Your task to perform on an android device: Open settings on Google Maps Image 0: 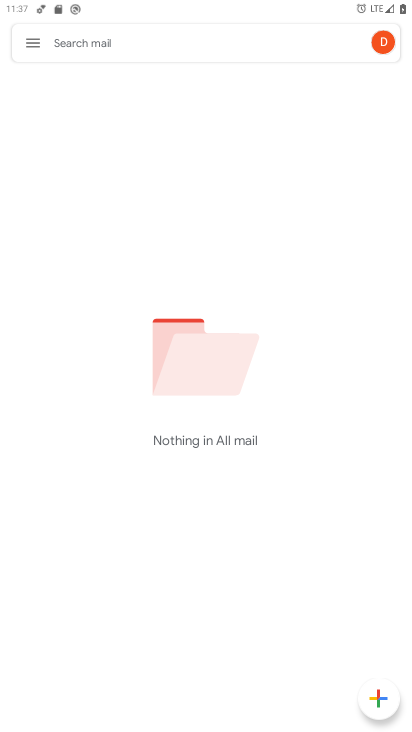
Step 0: press home button
Your task to perform on an android device: Open settings on Google Maps Image 1: 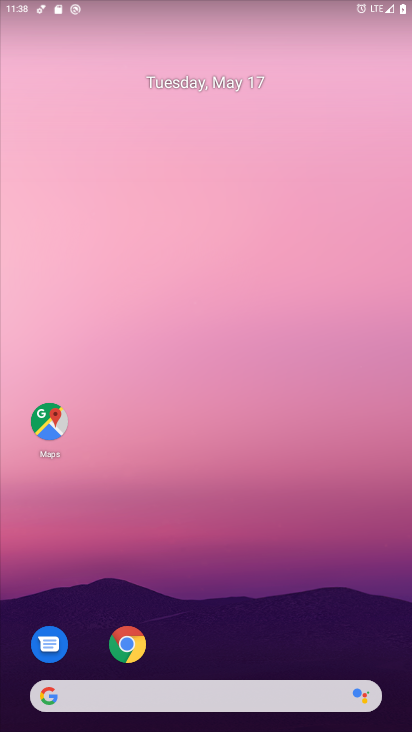
Step 1: click (49, 420)
Your task to perform on an android device: Open settings on Google Maps Image 2: 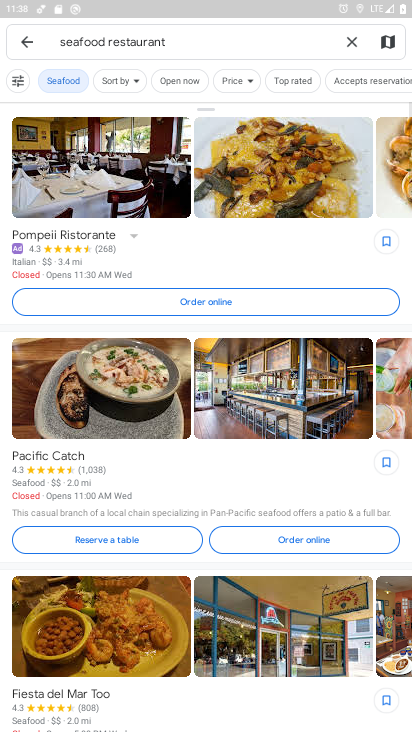
Step 2: click (23, 46)
Your task to perform on an android device: Open settings on Google Maps Image 3: 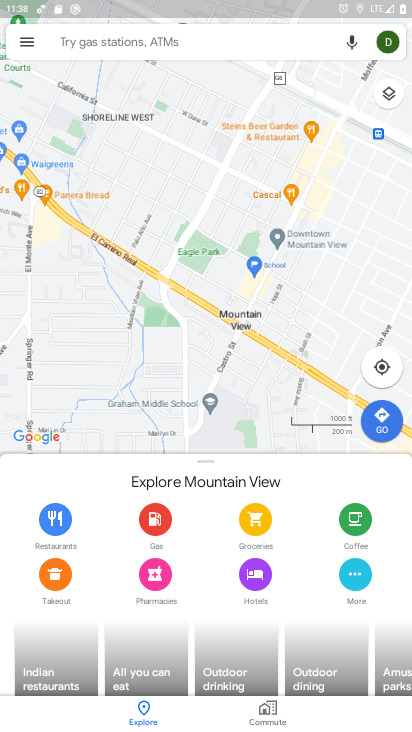
Step 3: click (23, 46)
Your task to perform on an android device: Open settings on Google Maps Image 4: 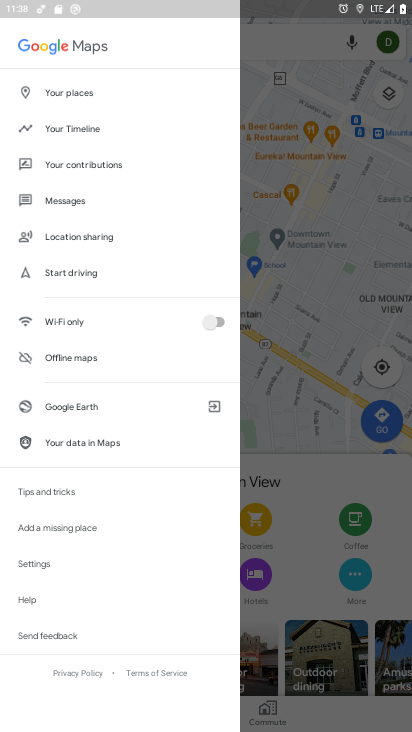
Step 4: click (66, 562)
Your task to perform on an android device: Open settings on Google Maps Image 5: 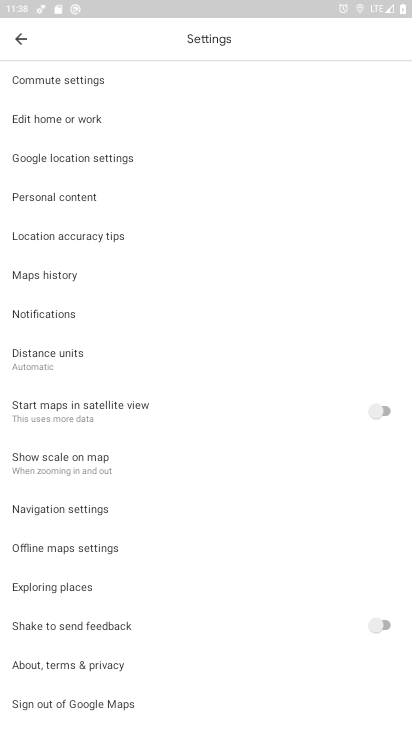
Step 5: task complete